Your task to perform on an android device: change timer sound Image 0: 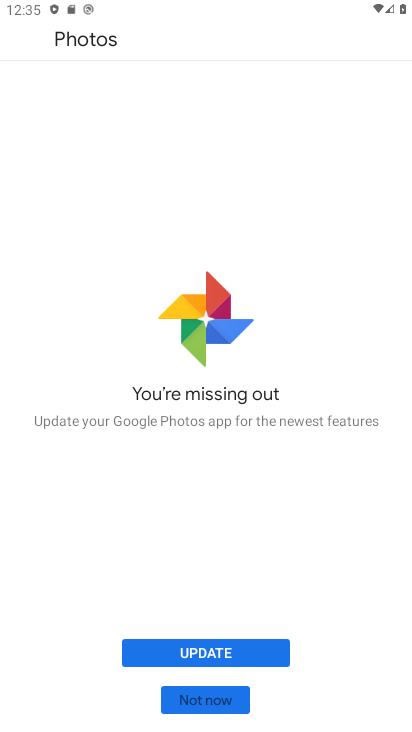
Step 0: press home button
Your task to perform on an android device: change timer sound Image 1: 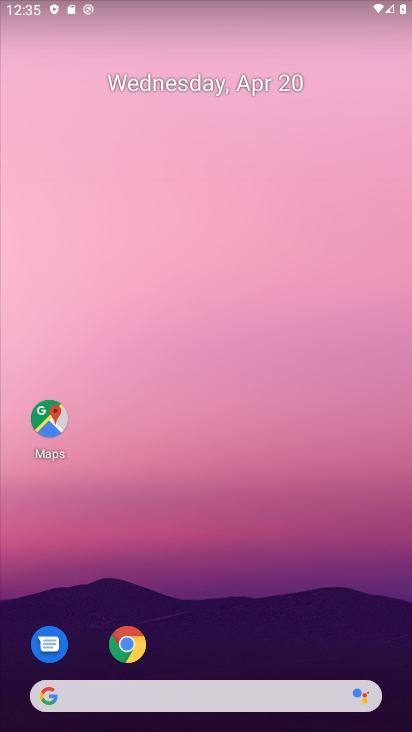
Step 1: drag from (318, 654) to (310, 3)
Your task to perform on an android device: change timer sound Image 2: 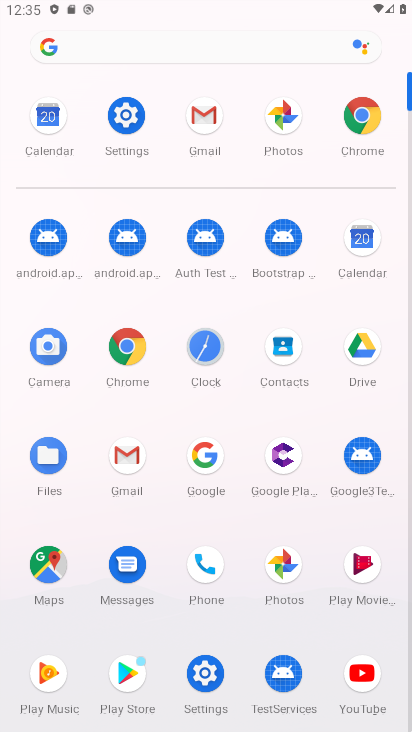
Step 2: click (215, 344)
Your task to perform on an android device: change timer sound Image 3: 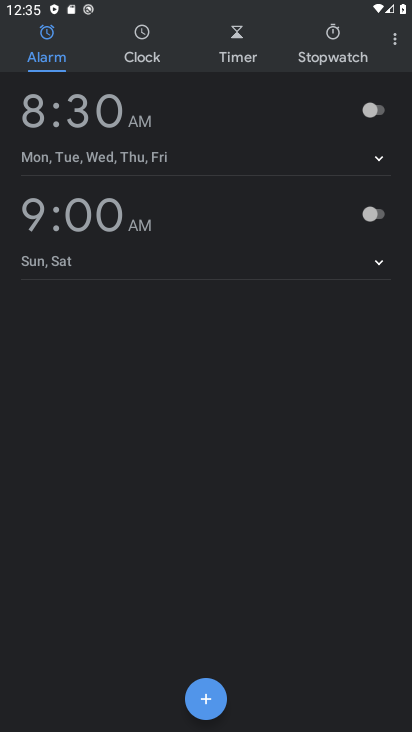
Step 3: click (391, 40)
Your task to perform on an android device: change timer sound Image 4: 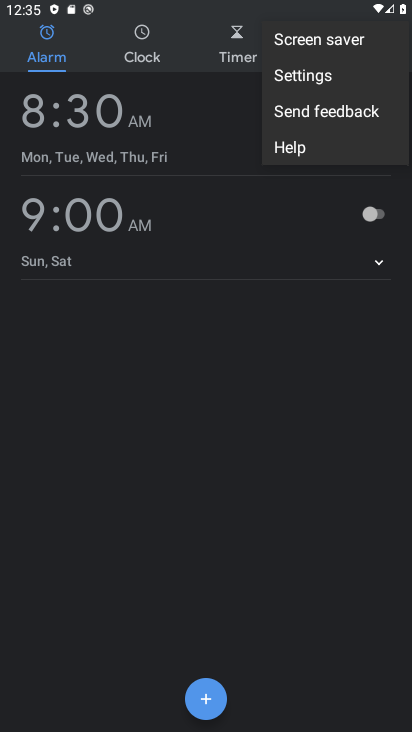
Step 4: click (362, 71)
Your task to perform on an android device: change timer sound Image 5: 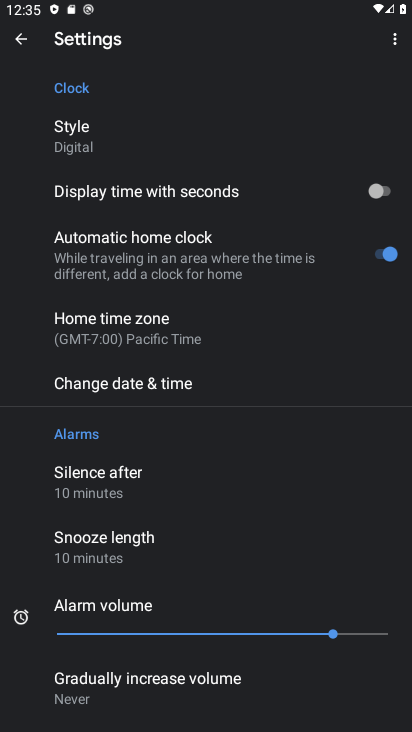
Step 5: drag from (182, 571) to (229, 216)
Your task to perform on an android device: change timer sound Image 6: 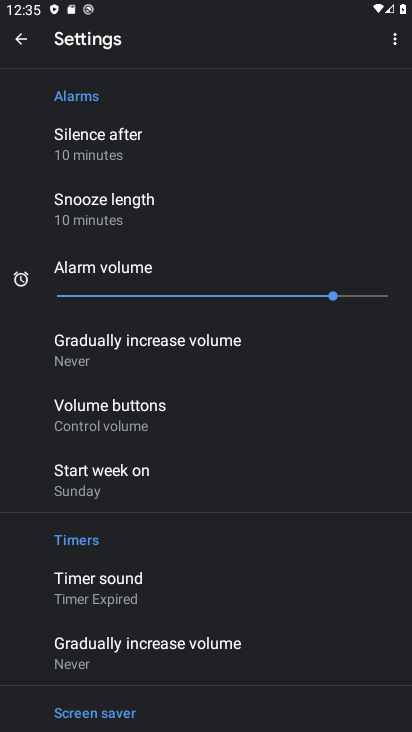
Step 6: click (124, 571)
Your task to perform on an android device: change timer sound Image 7: 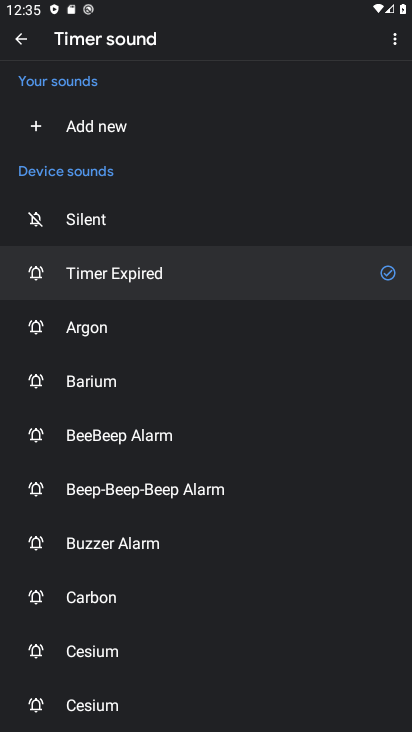
Step 7: click (98, 327)
Your task to perform on an android device: change timer sound Image 8: 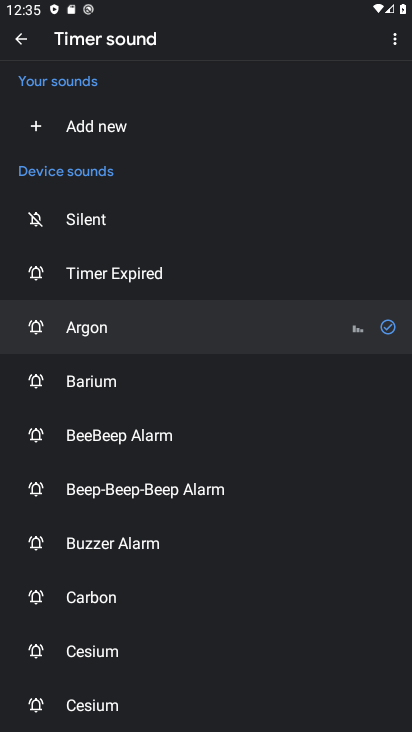
Step 8: task complete